Your task to perform on an android device: Search for Italian restaurants on Maps Image 0: 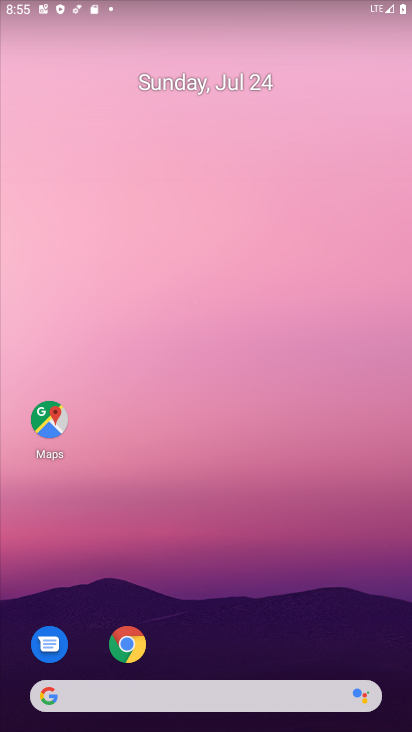
Step 0: click (37, 421)
Your task to perform on an android device: Search for Italian restaurants on Maps Image 1: 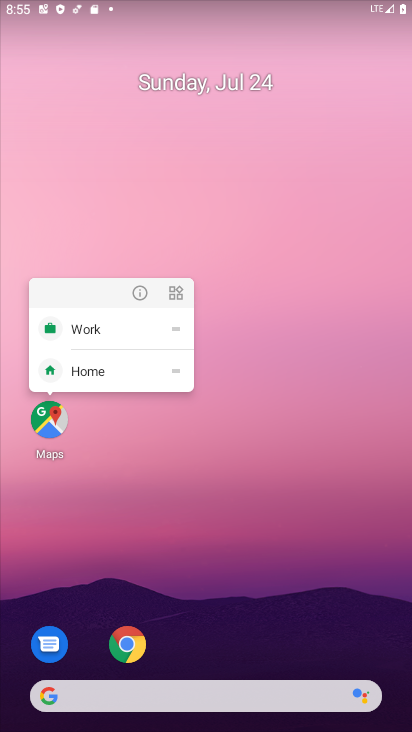
Step 1: click (47, 413)
Your task to perform on an android device: Search for Italian restaurants on Maps Image 2: 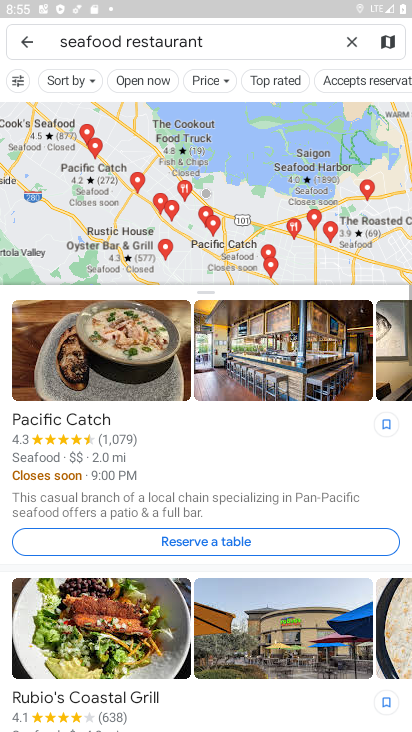
Step 2: click (352, 47)
Your task to perform on an android device: Search for Italian restaurants on Maps Image 3: 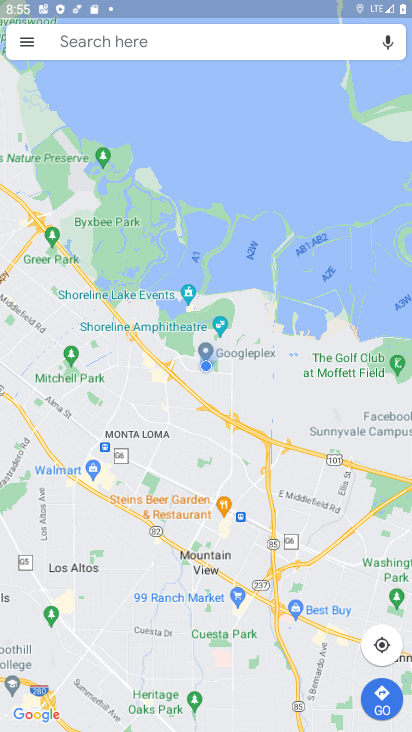
Step 3: click (167, 38)
Your task to perform on an android device: Search for Italian restaurants on Maps Image 4: 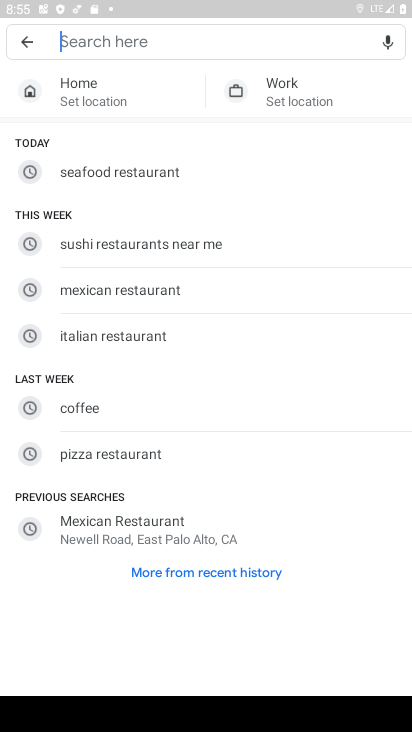
Step 4: click (97, 318)
Your task to perform on an android device: Search for Italian restaurants on Maps Image 5: 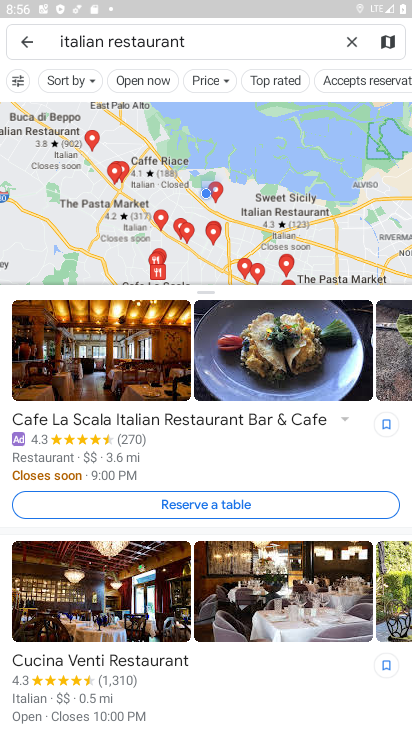
Step 5: task complete